Your task to perform on an android device: open a new tab in the chrome app Image 0: 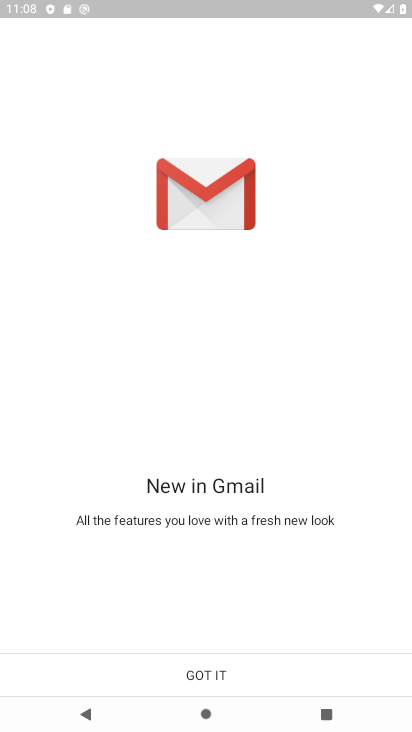
Step 0: press home button
Your task to perform on an android device: open a new tab in the chrome app Image 1: 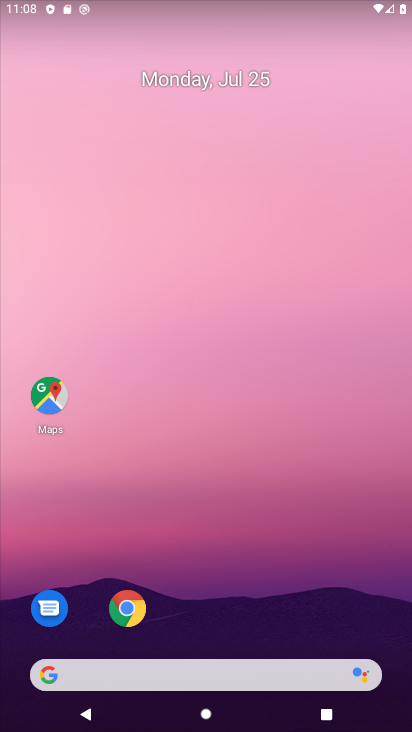
Step 1: click (136, 619)
Your task to perform on an android device: open a new tab in the chrome app Image 2: 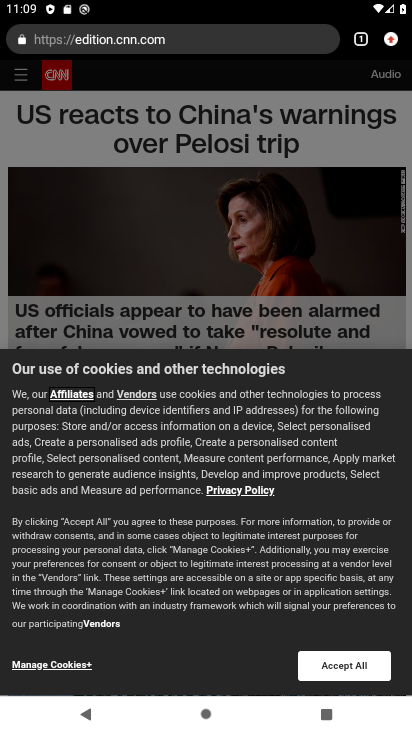
Step 2: task complete